Your task to perform on an android device: open app "Nova Launcher" Image 0: 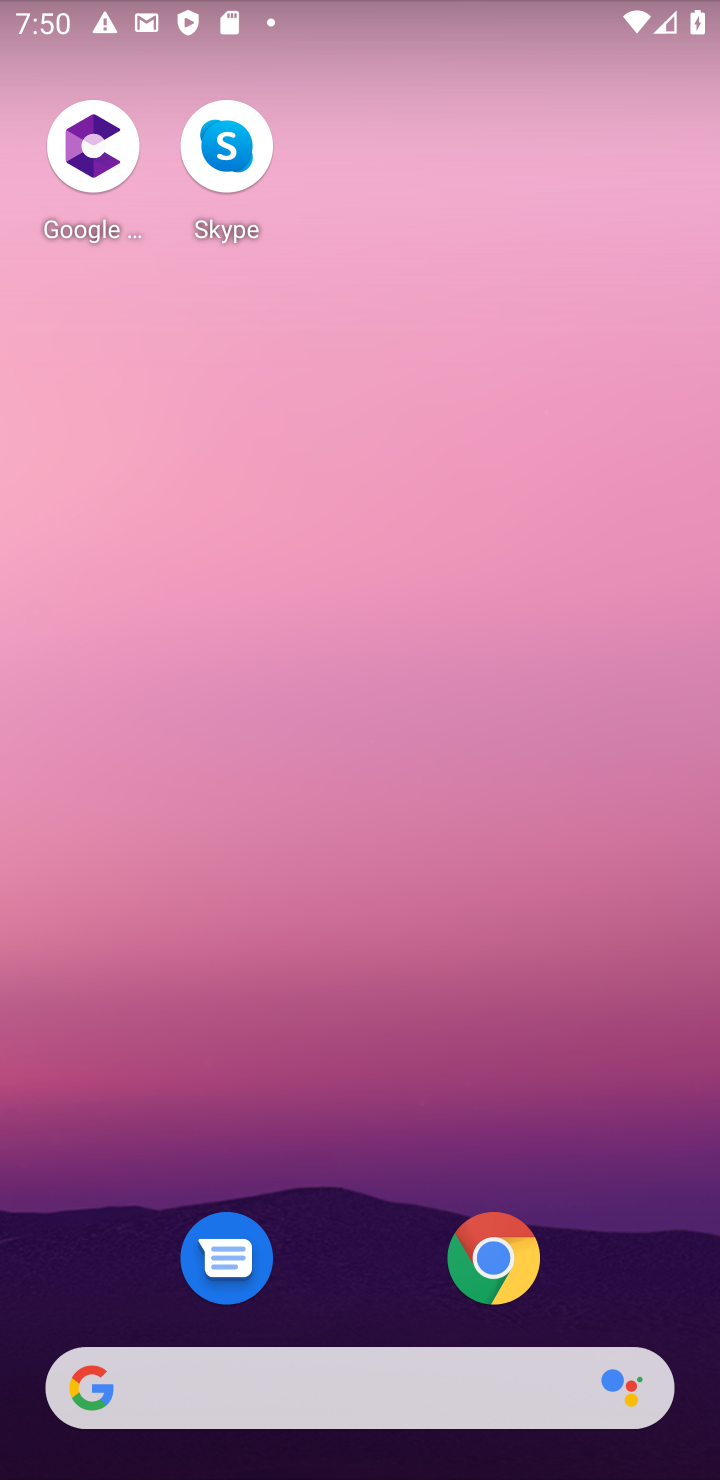
Step 0: drag from (427, 1049) to (521, 173)
Your task to perform on an android device: open app "Nova Launcher" Image 1: 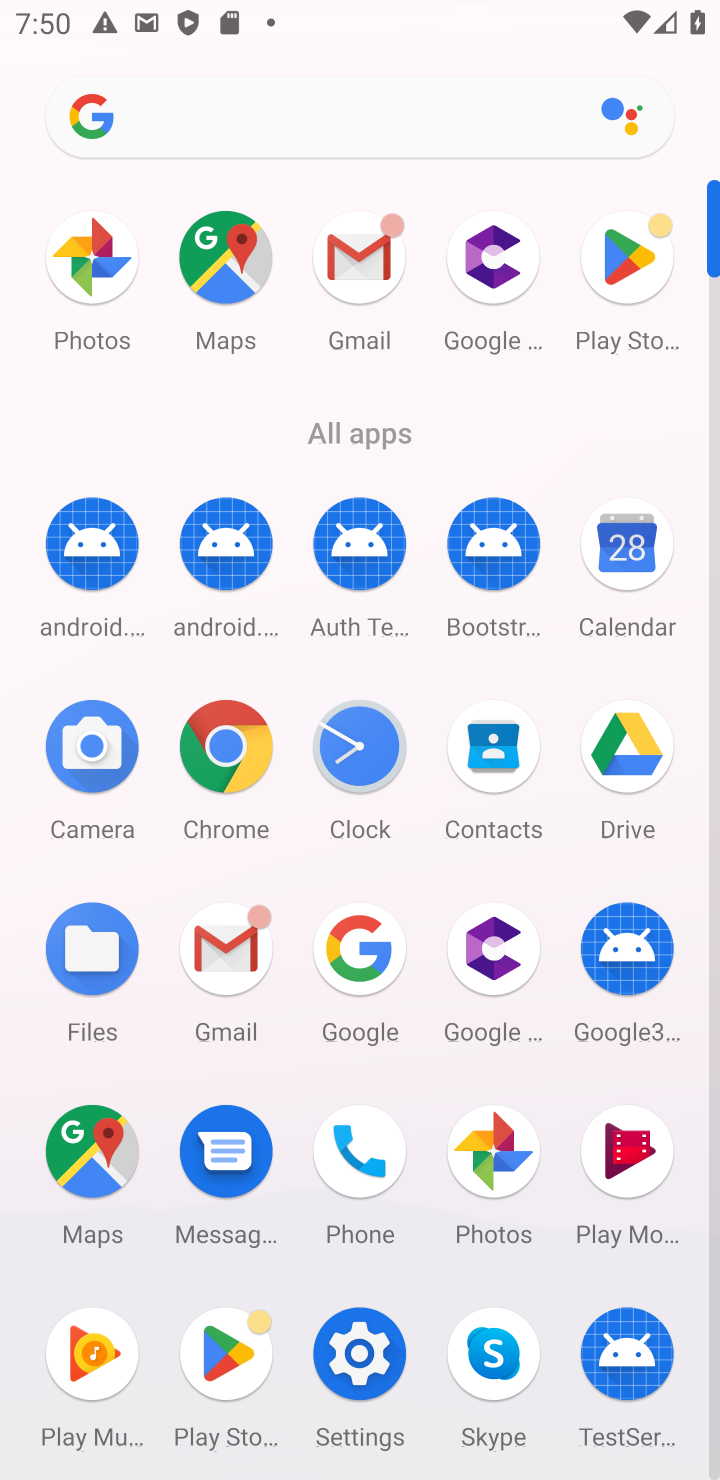
Step 1: click (631, 299)
Your task to perform on an android device: open app "Nova Launcher" Image 2: 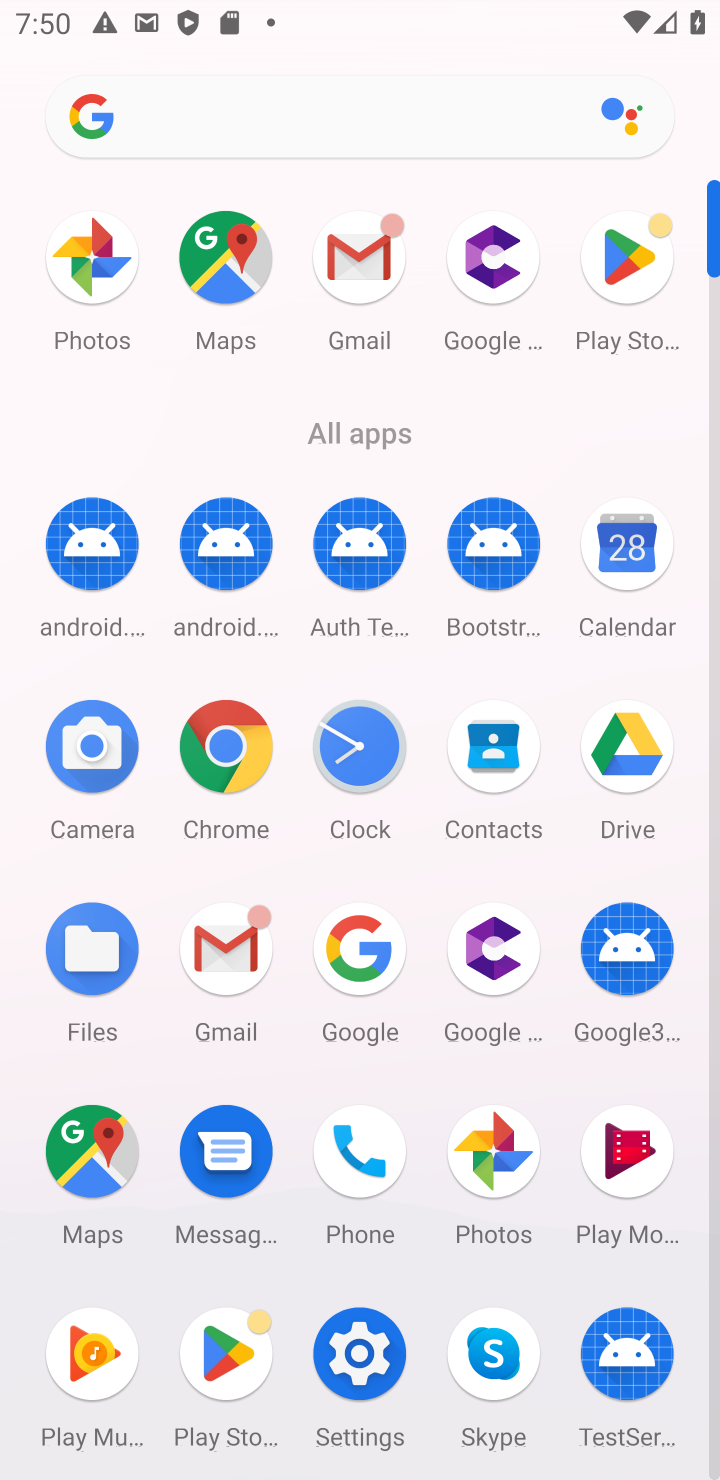
Step 2: click (631, 299)
Your task to perform on an android device: open app "Nova Launcher" Image 3: 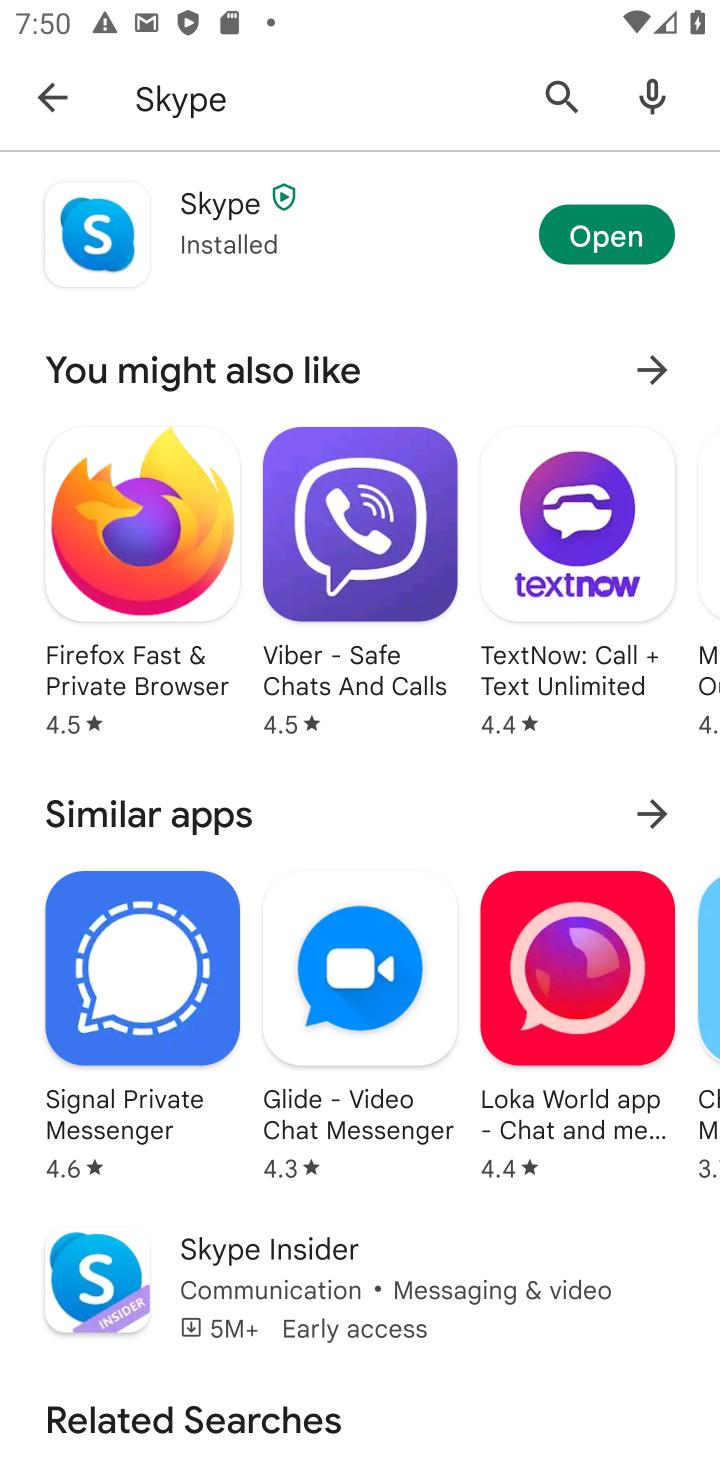
Step 3: click (549, 104)
Your task to perform on an android device: open app "Nova Launcher" Image 4: 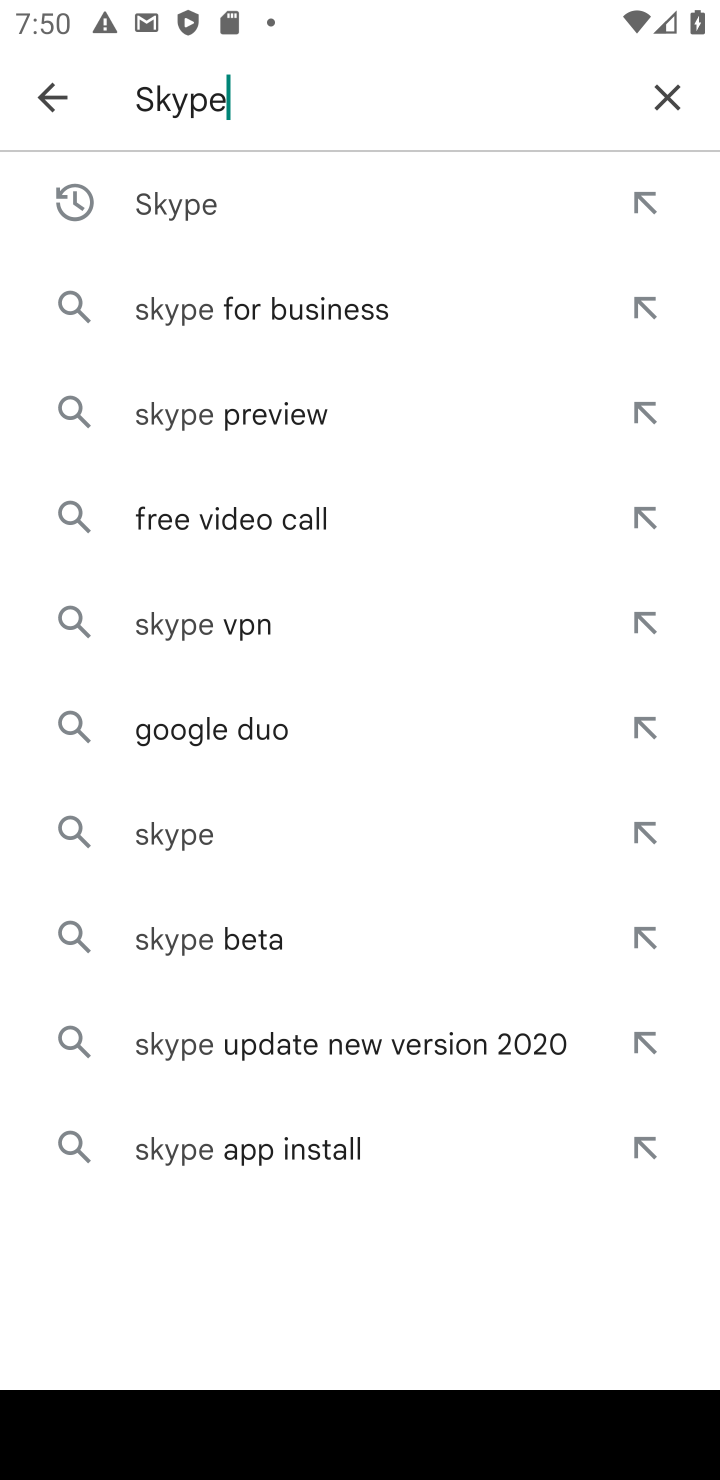
Step 4: click (674, 100)
Your task to perform on an android device: open app "Nova Launcher" Image 5: 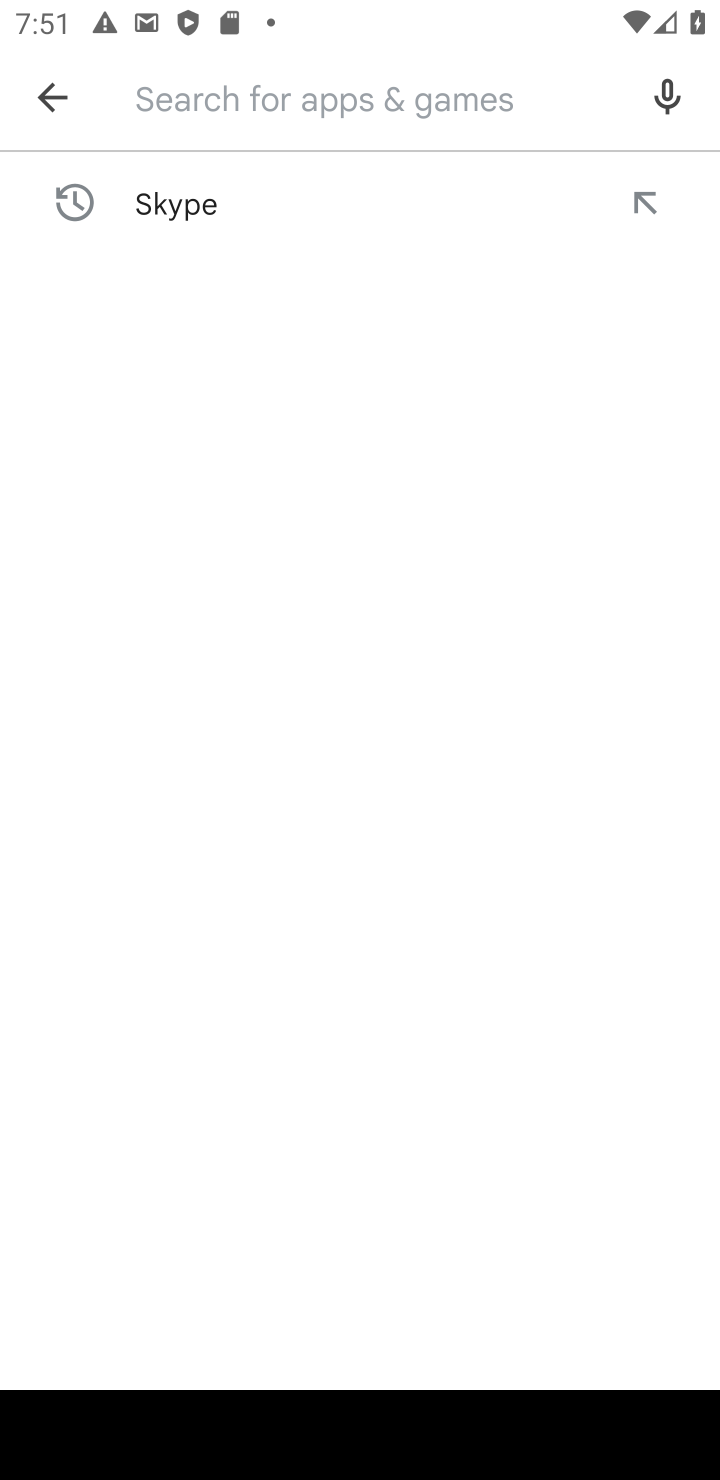
Step 5: type "Nova Launcher"
Your task to perform on an android device: open app "Nova Launcher" Image 6: 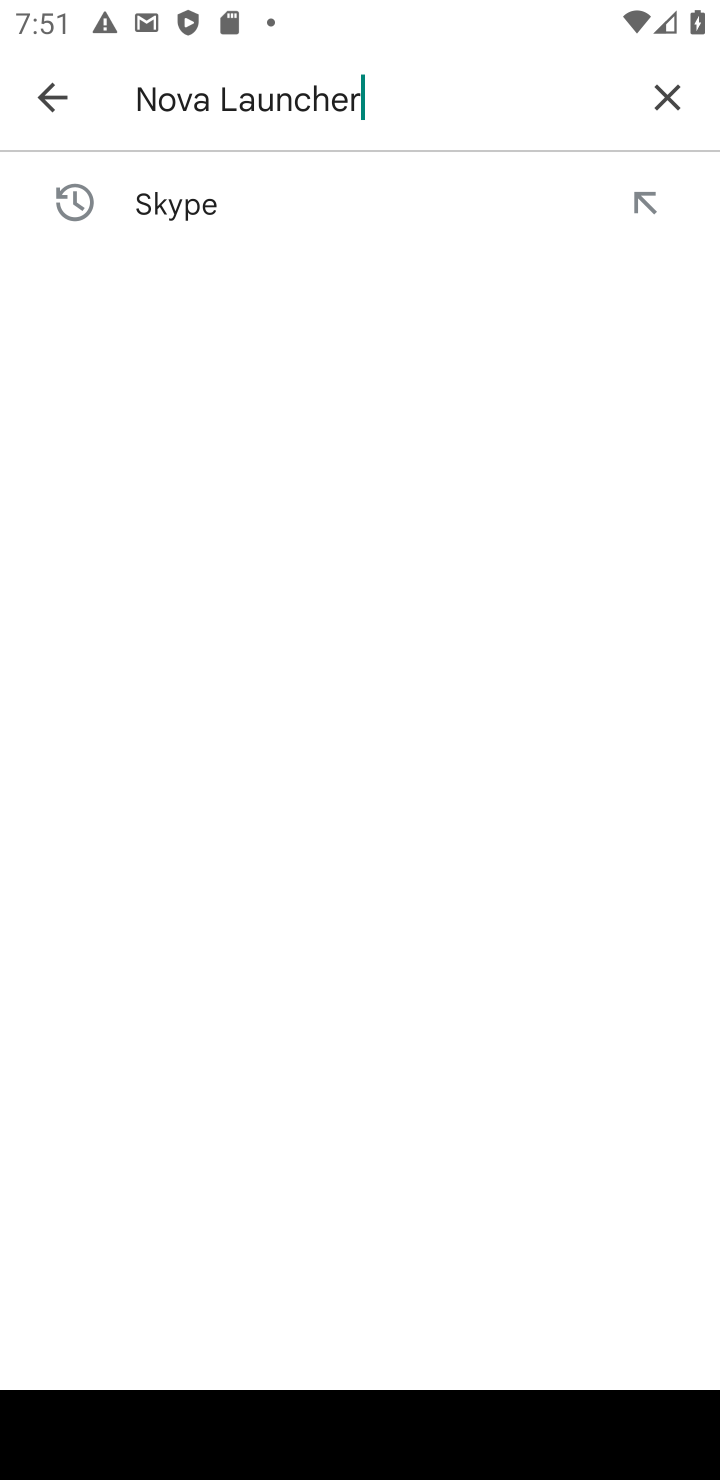
Step 6: press enter
Your task to perform on an android device: open app "Nova Launcher" Image 7: 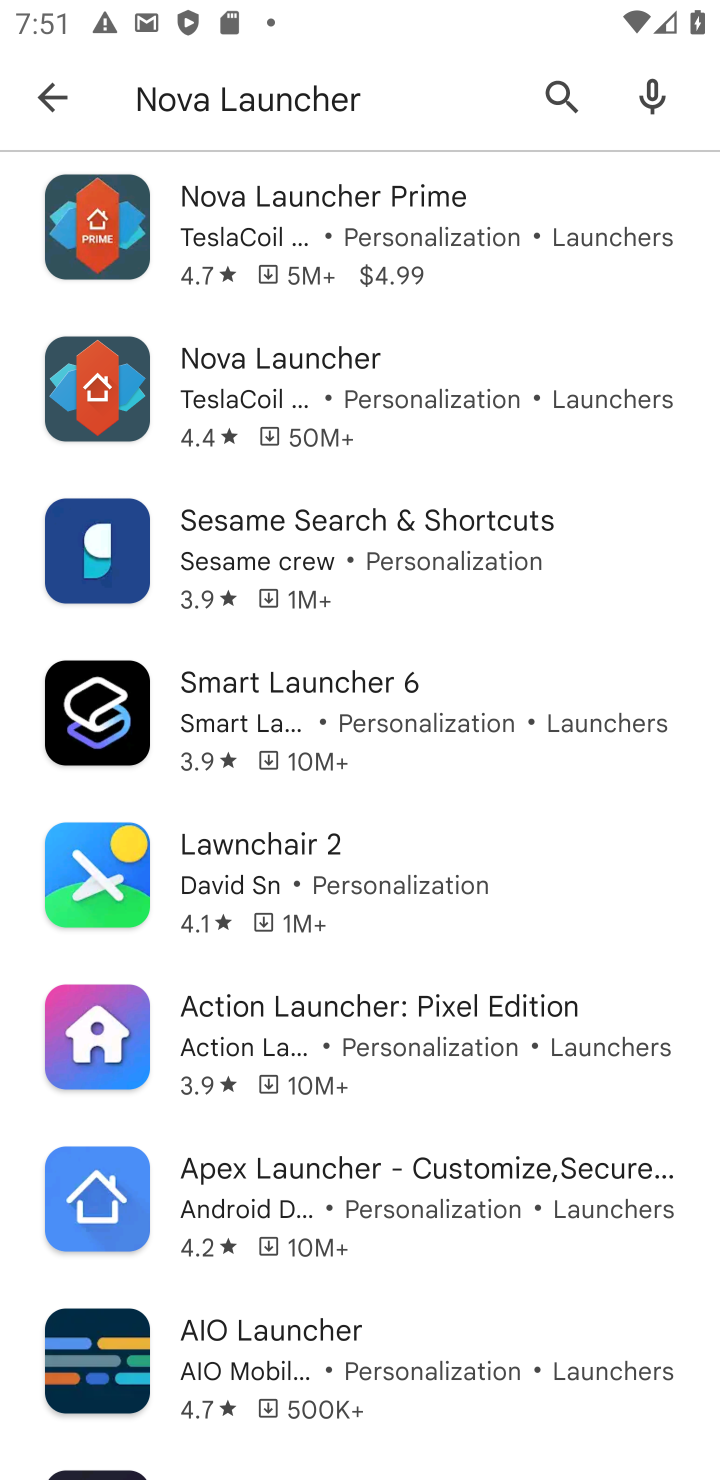
Step 7: click (520, 392)
Your task to perform on an android device: open app "Nova Launcher" Image 8: 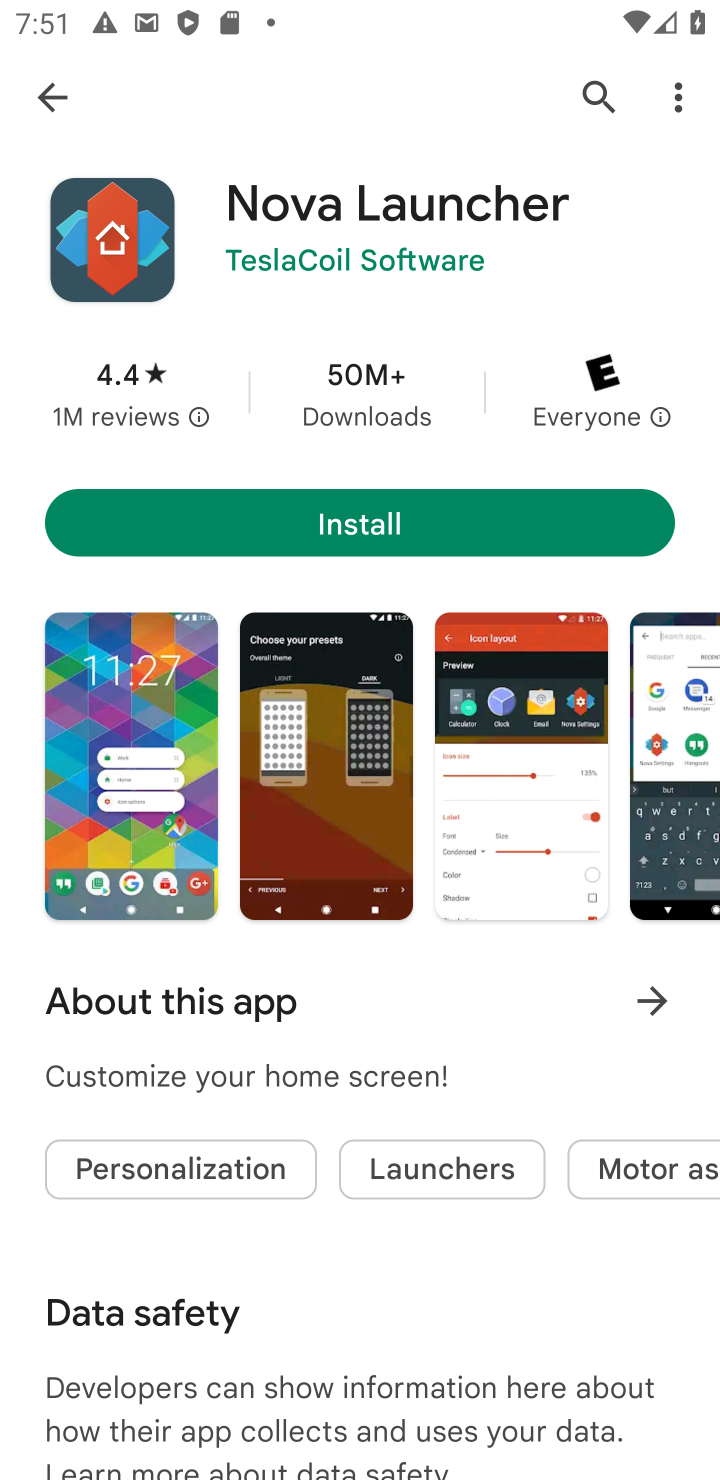
Step 8: task complete